Your task to perform on an android device: clear history in the chrome app Image 0: 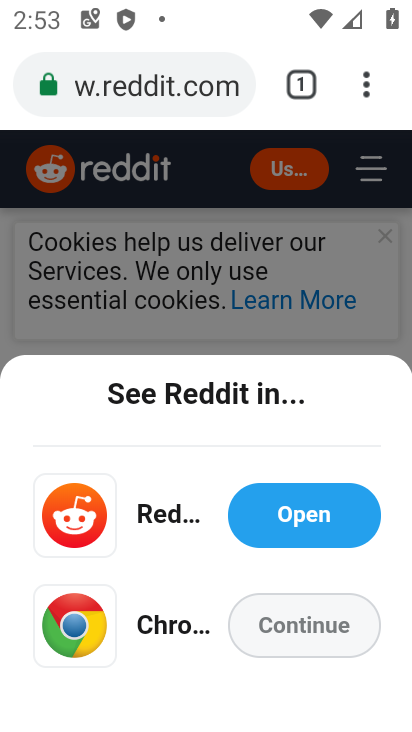
Step 0: drag from (372, 542) to (361, 184)
Your task to perform on an android device: clear history in the chrome app Image 1: 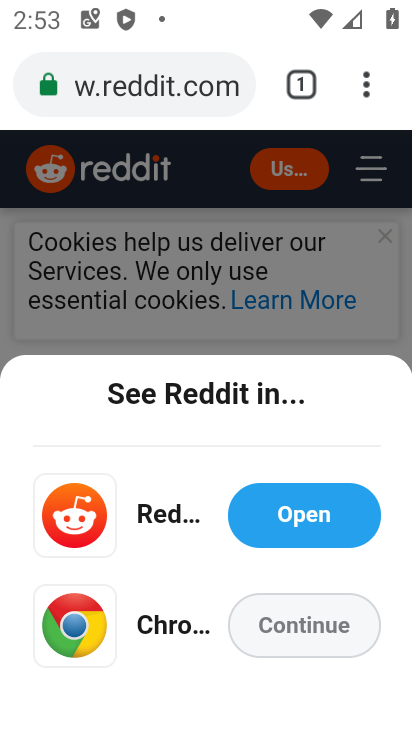
Step 1: press home button
Your task to perform on an android device: clear history in the chrome app Image 2: 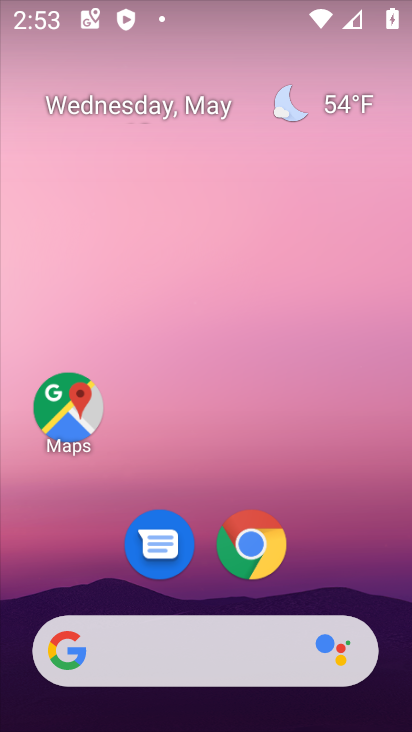
Step 2: drag from (361, 544) to (379, 177)
Your task to perform on an android device: clear history in the chrome app Image 3: 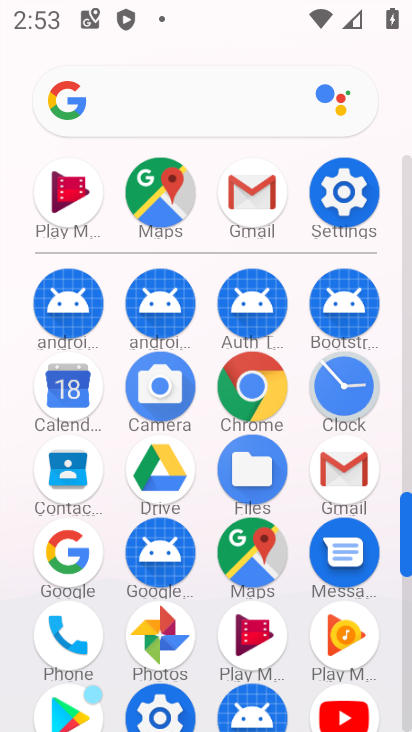
Step 3: click (252, 388)
Your task to perform on an android device: clear history in the chrome app Image 4: 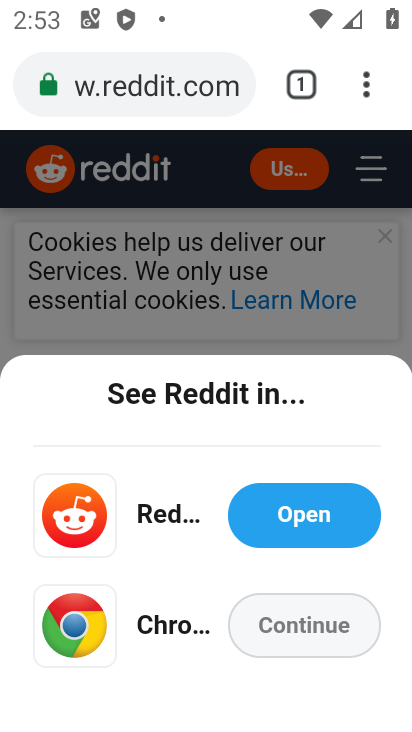
Step 4: click (372, 94)
Your task to perform on an android device: clear history in the chrome app Image 5: 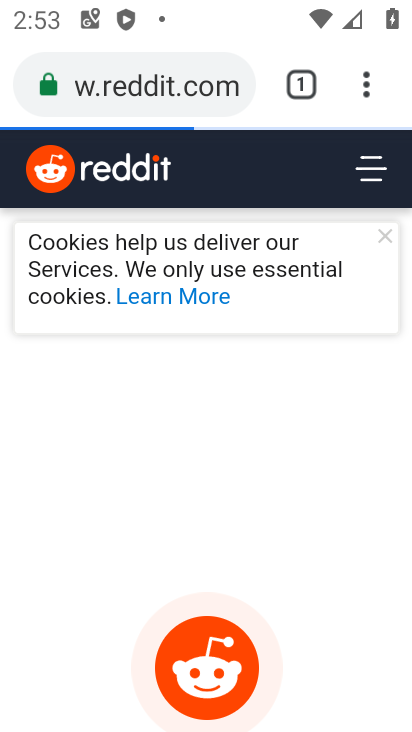
Step 5: click (365, 78)
Your task to perform on an android device: clear history in the chrome app Image 6: 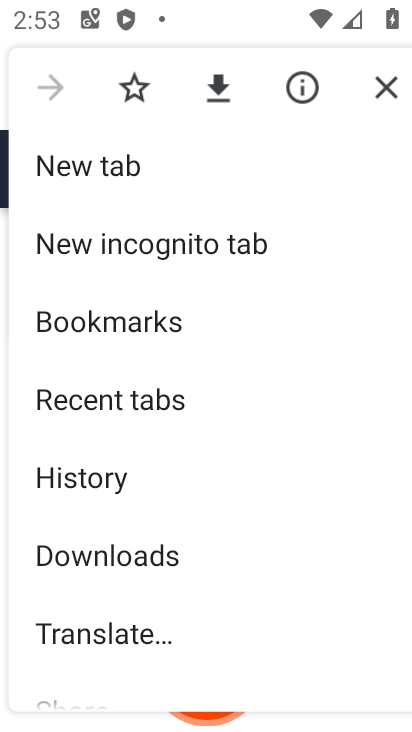
Step 6: drag from (215, 588) to (225, 528)
Your task to perform on an android device: clear history in the chrome app Image 7: 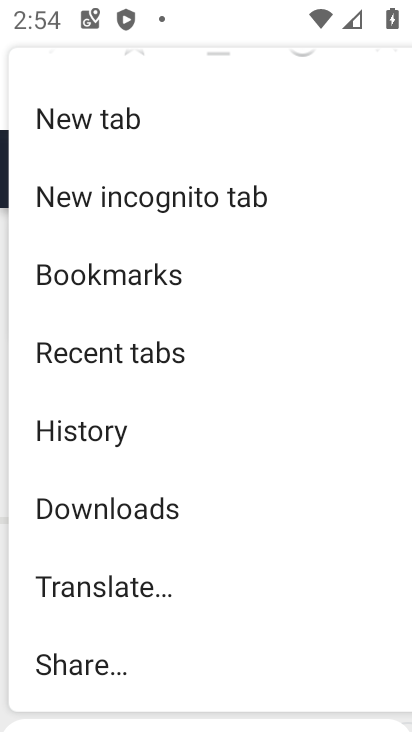
Step 7: click (167, 420)
Your task to perform on an android device: clear history in the chrome app Image 8: 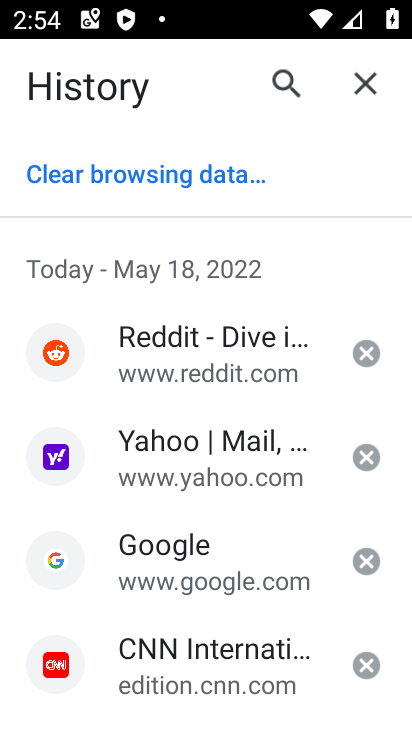
Step 8: click (184, 176)
Your task to perform on an android device: clear history in the chrome app Image 9: 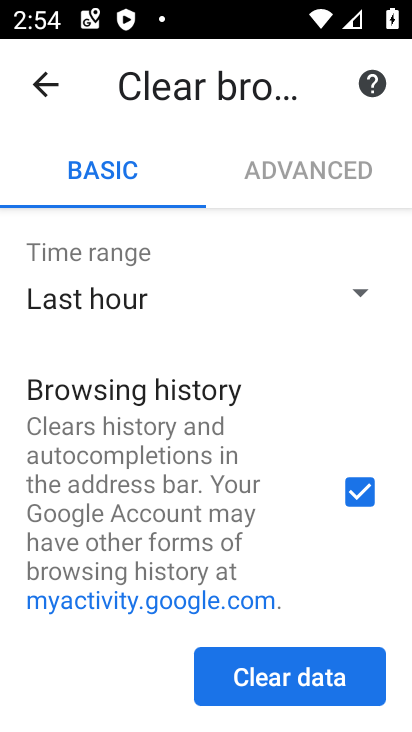
Step 9: drag from (175, 466) to (213, 240)
Your task to perform on an android device: clear history in the chrome app Image 10: 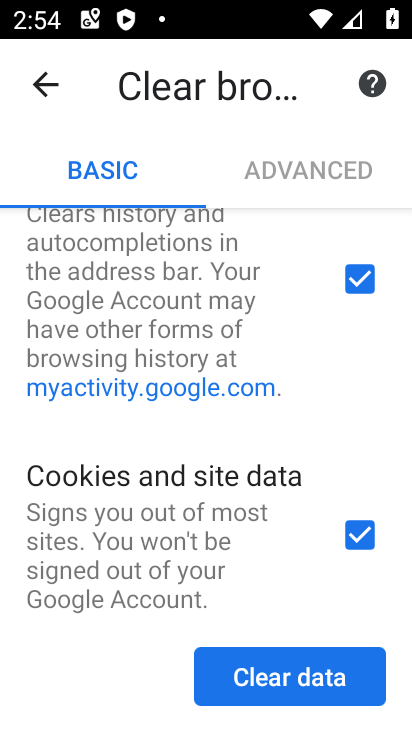
Step 10: click (268, 668)
Your task to perform on an android device: clear history in the chrome app Image 11: 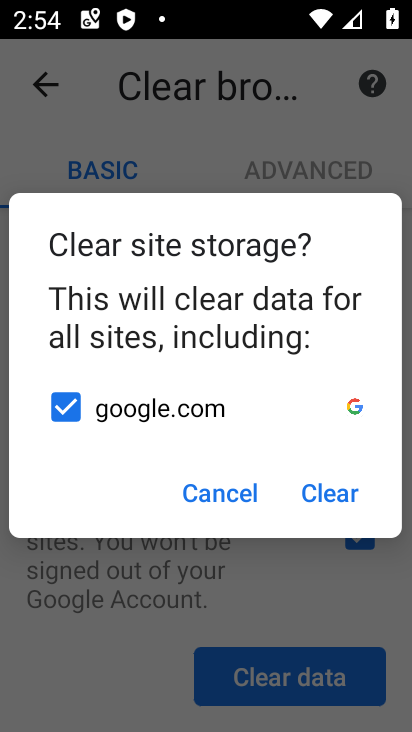
Step 11: click (332, 504)
Your task to perform on an android device: clear history in the chrome app Image 12: 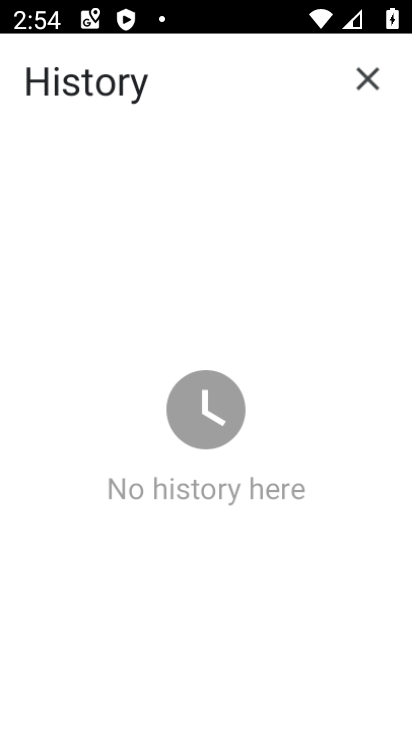
Step 12: task complete